Your task to perform on an android device: Go to Yahoo.com Image 0: 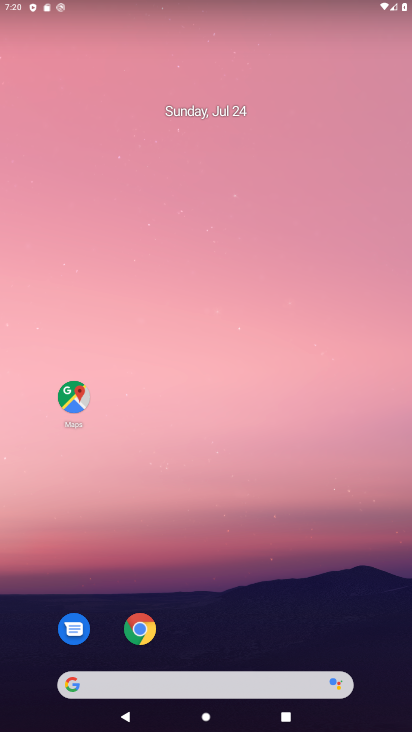
Step 0: drag from (364, 643) to (121, 68)
Your task to perform on an android device: Go to Yahoo.com Image 1: 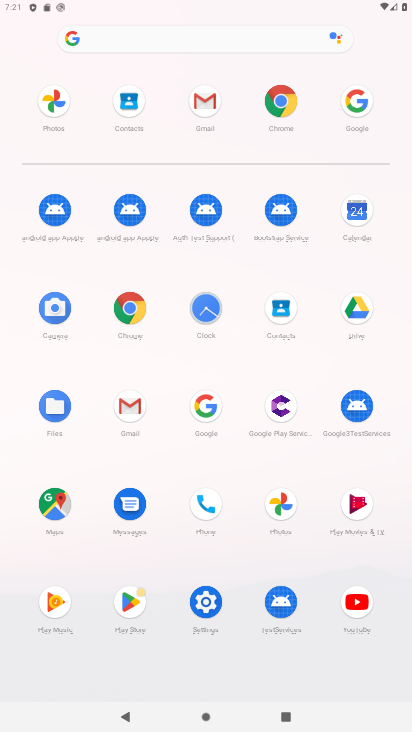
Step 1: click (213, 405)
Your task to perform on an android device: Go to Yahoo.com Image 2: 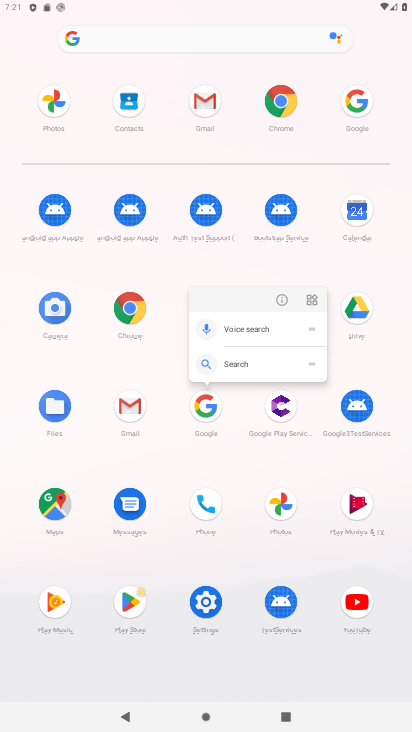
Step 2: click (212, 406)
Your task to perform on an android device: Go to Yahoo.com Image 3: 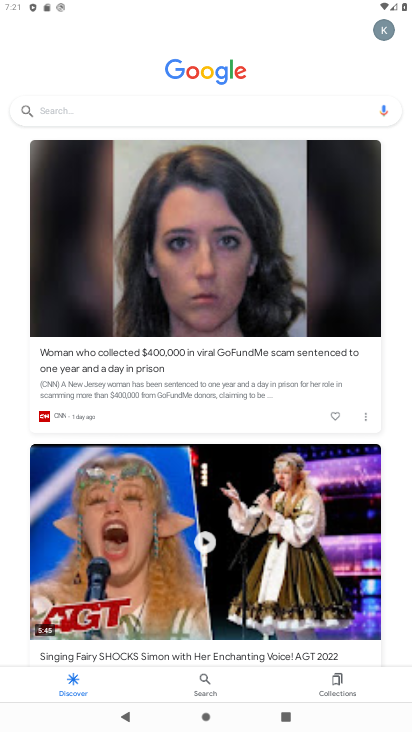
Step 3: click (75, 104)
Your task to perform on an android device: Go to Yahoo.com Image 4: 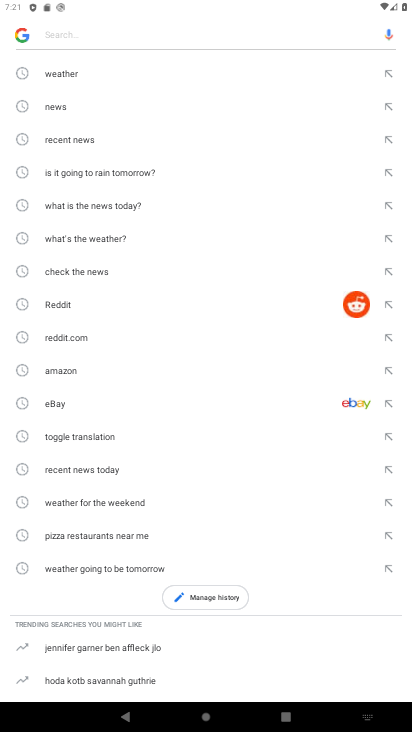
Step 4: type "Yahoo.com"
Your task to perform on an android device: Go to Yahoo.com Image 5: 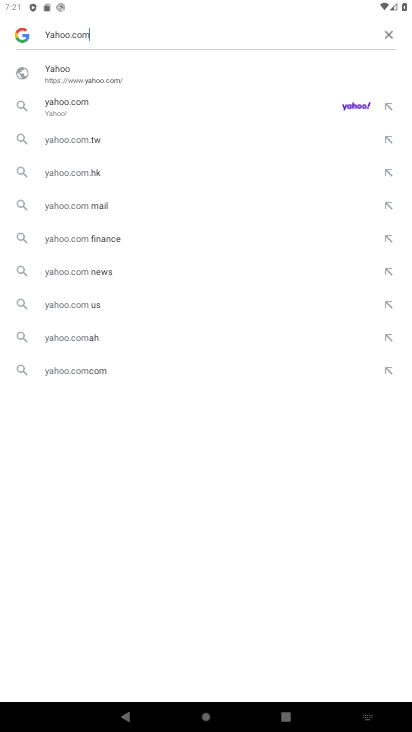
Step 5: click (86, 112)
Your task to perform on an android device: Go to Yahoo.com Image 6: 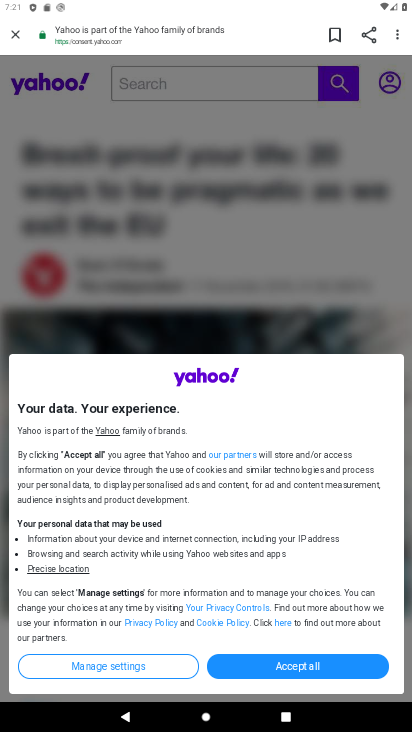
Step 6: task complete